Your task to perform on an android device: change your default location settings in chrome Image 0: 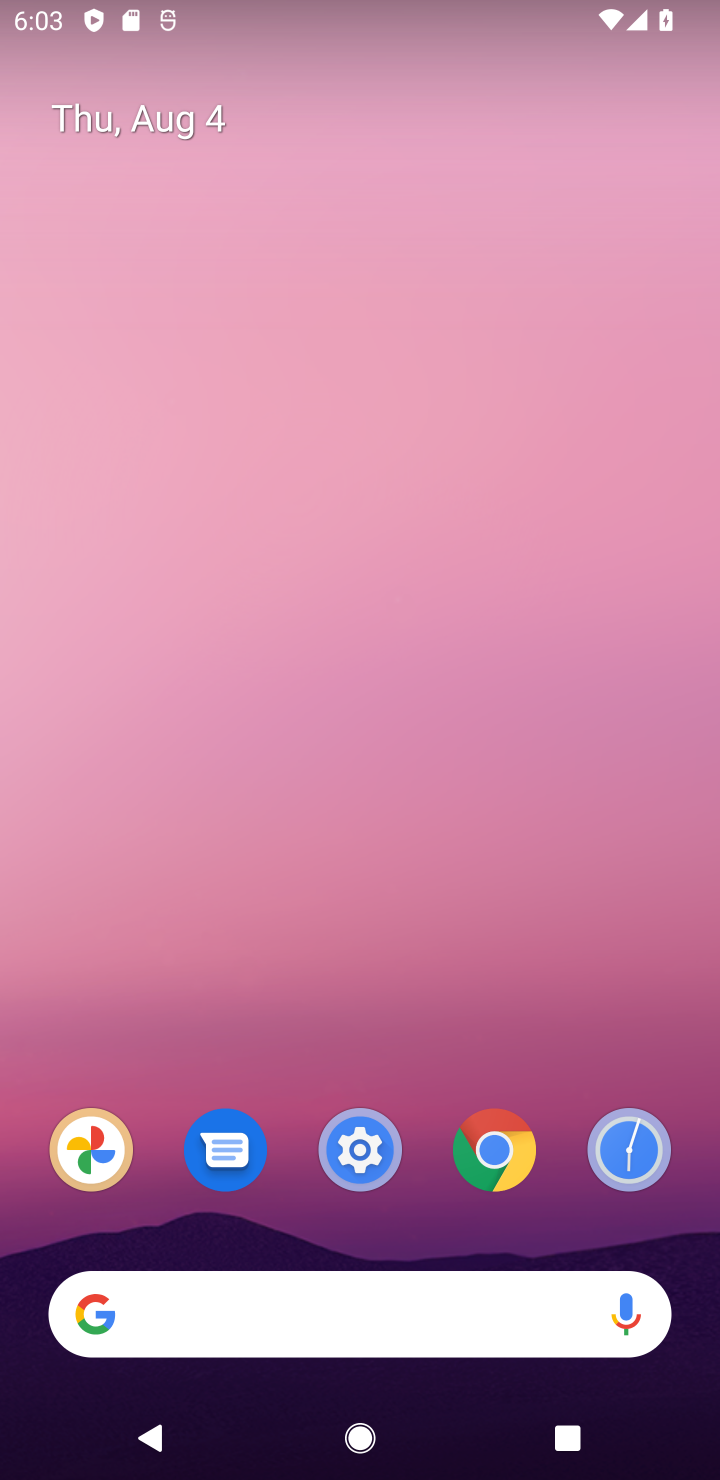
Step 0: drag from (456, 816) to (692, 633)
Your task to perform on an android device: change your default location settings in chrome Image 1: 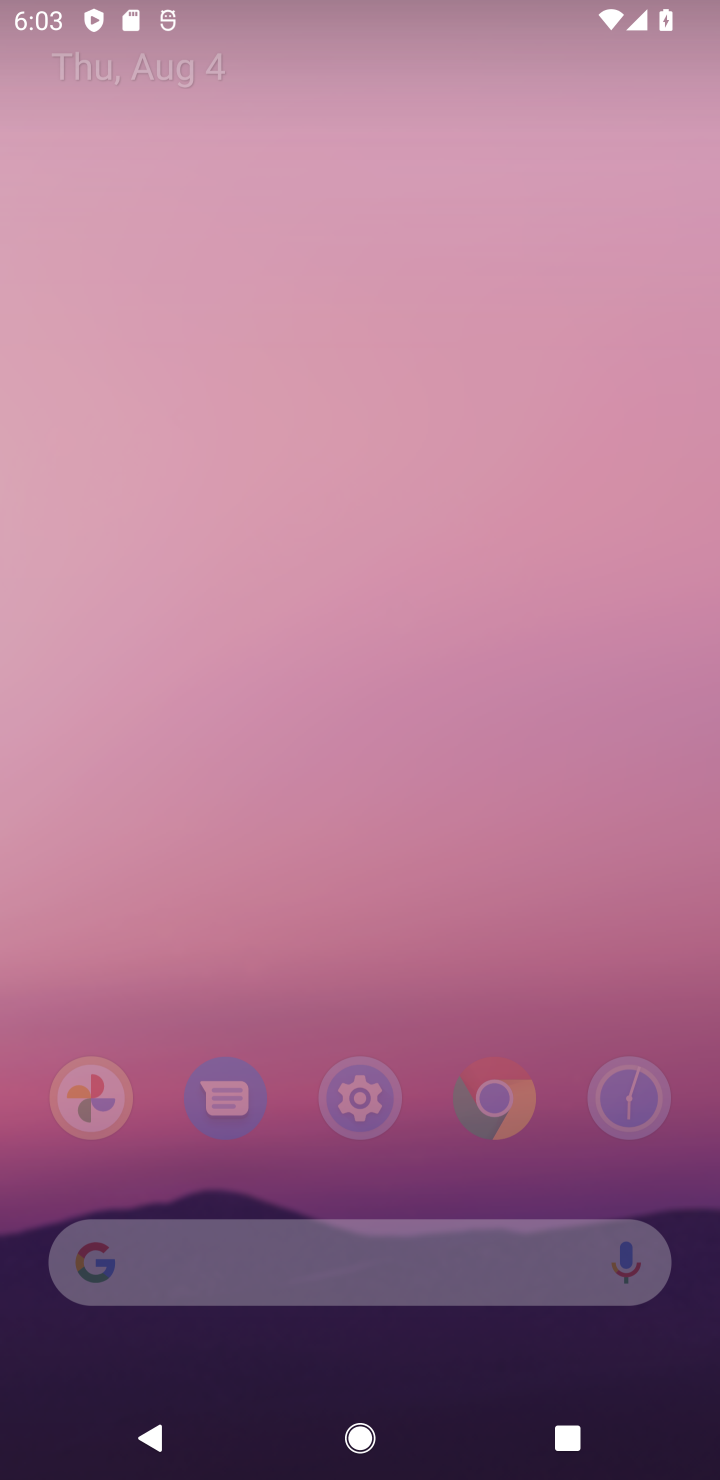
Step 1: click (357, 544)
Your task to perform on an android device: change your default location settings in chrome Image 2: 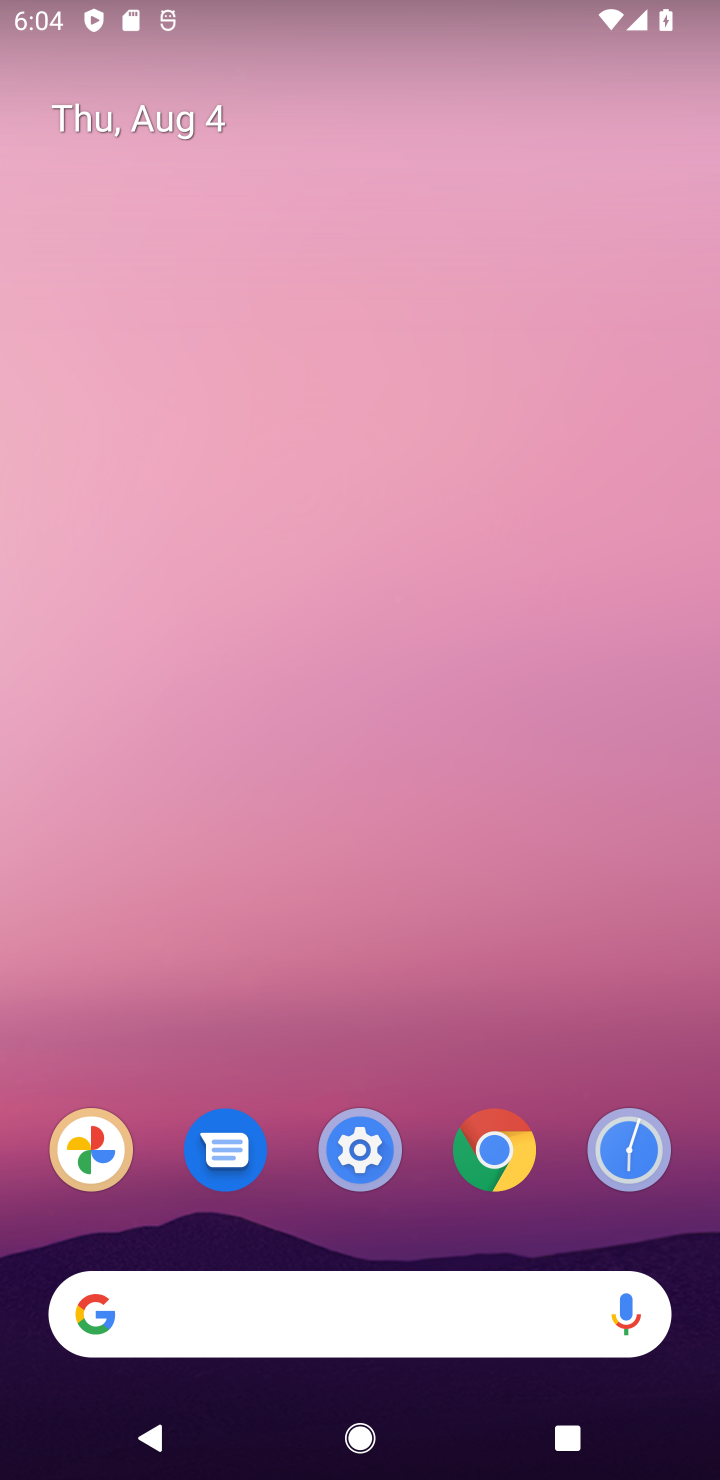
Step 2: drag from (336, 1254) to (549, 174)
Your task to perform on an android device: change your default location settings in chrome Image 3: 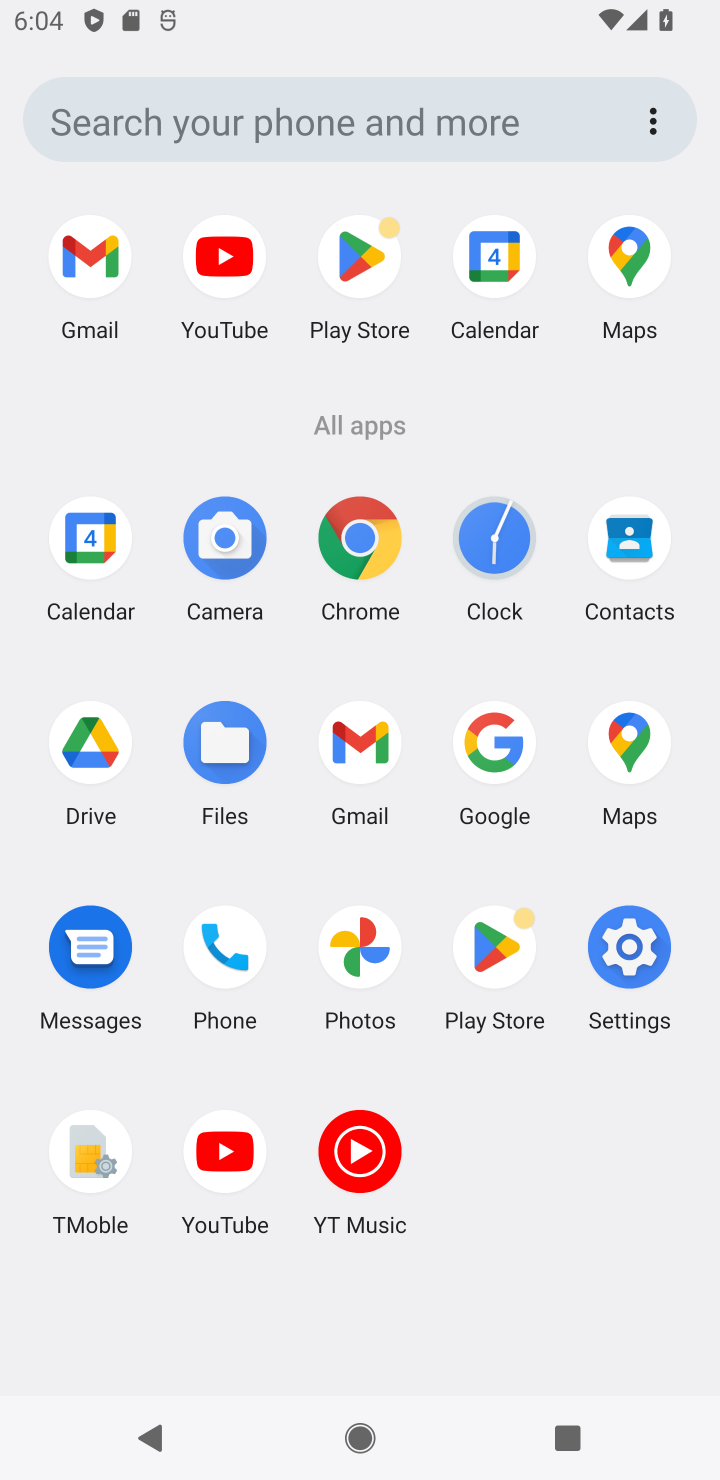
Step 3: click (363, 522)
Your task to perform on an android device: change your default location settings in chrome Image 4: 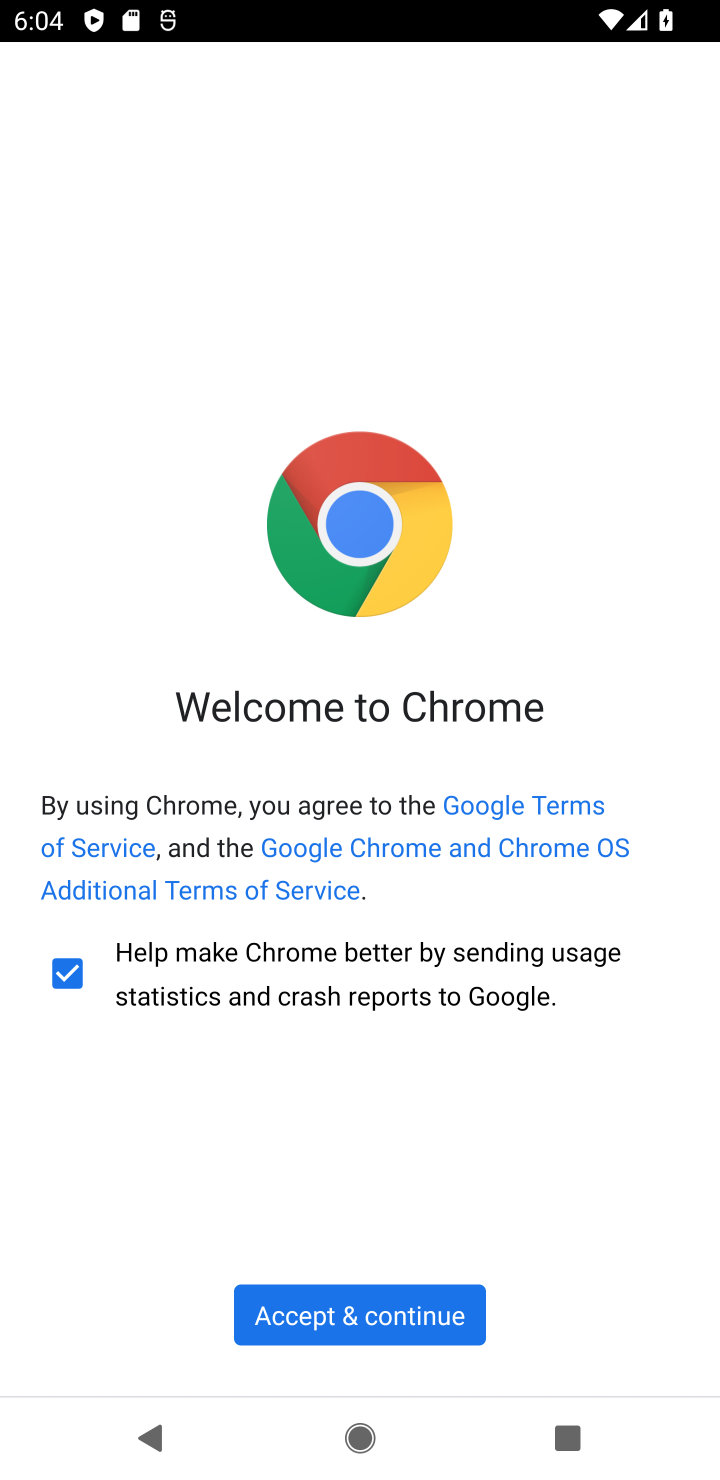
Step 4: click (330, 1291)
Your task to perform on an android device: change your default location settings in chrome Image 5: 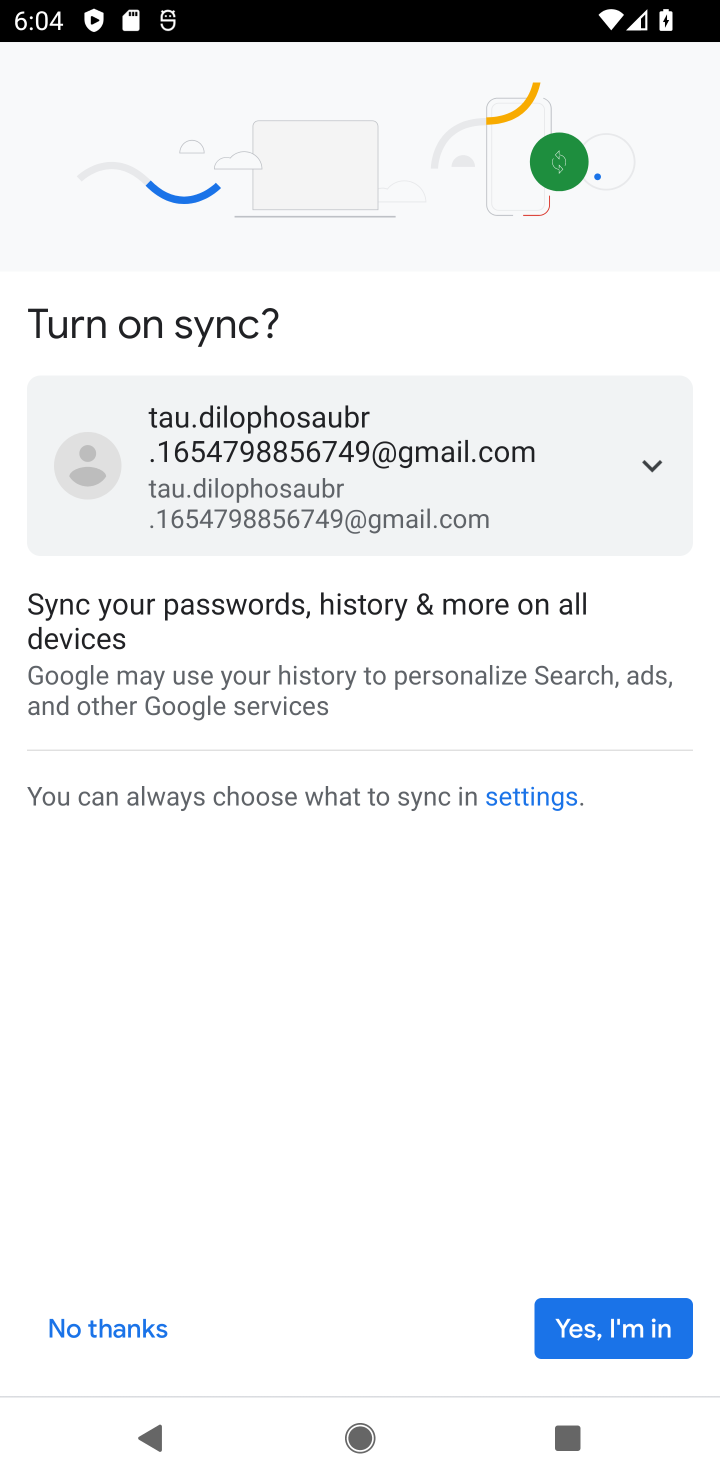
Step 5: click (109, 1327)
Your task to perform on an android device: change your default location settings in chrome Image 6: 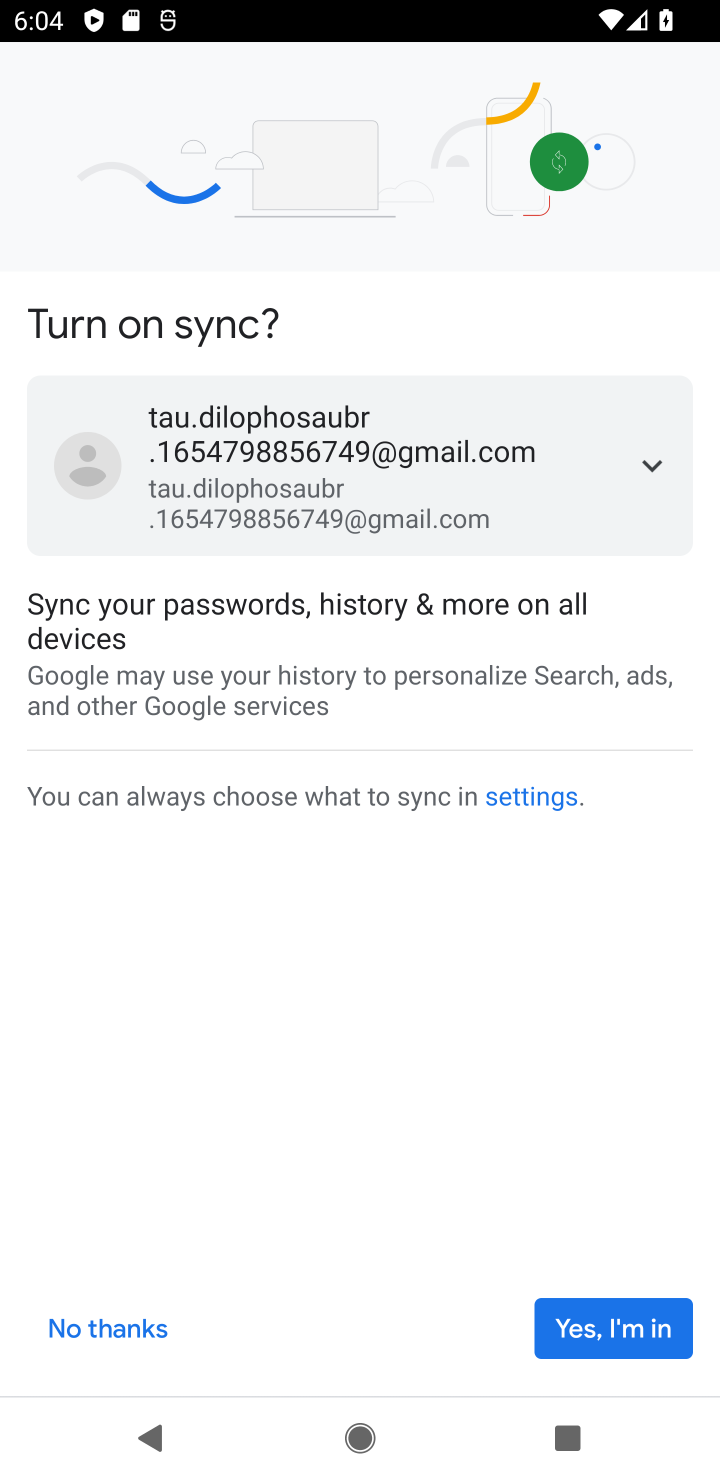
Step 6: click (109, 1321)
Your task to perform on an android device: change your default location settings in chrome Image 7: 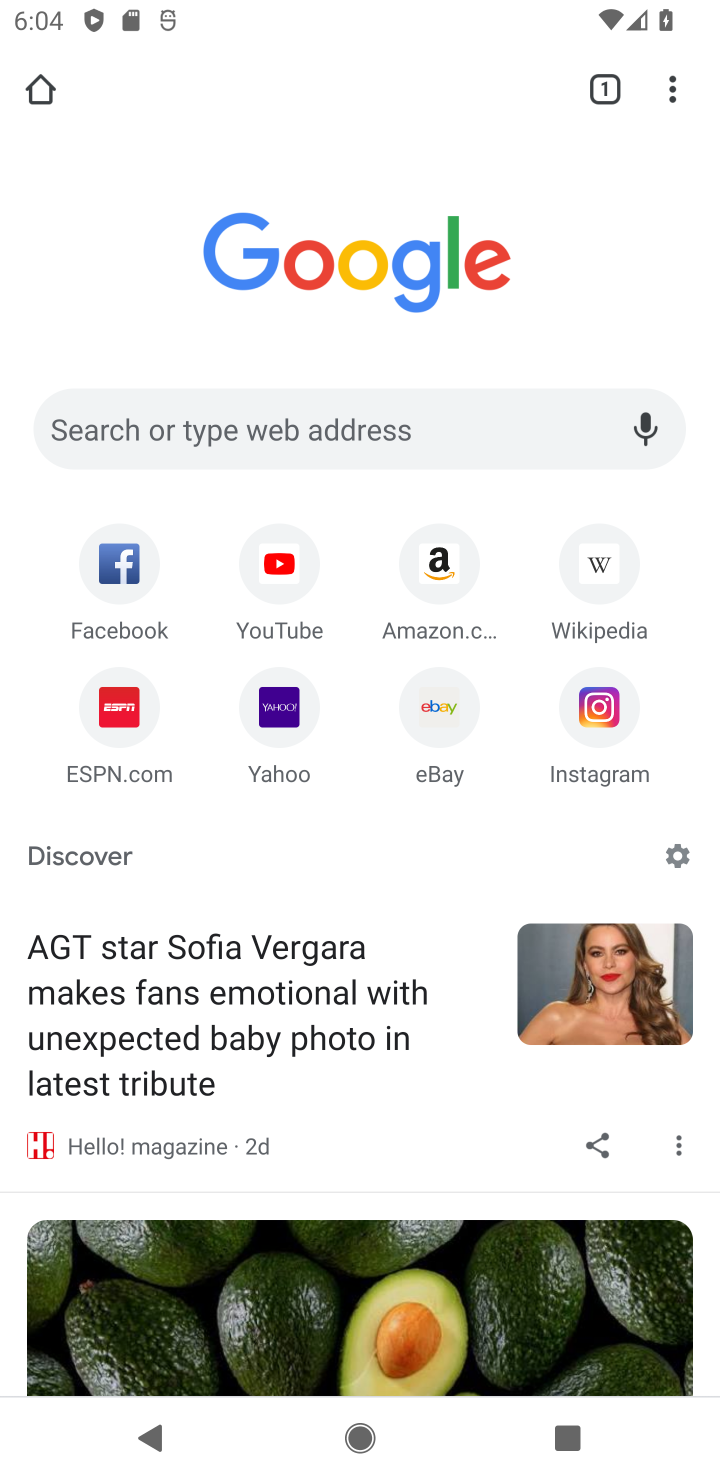
Step 7: drag from (668, 104) to (381, 800)
Your task to perform on an android device: change your default location settings in chrome Image 8: 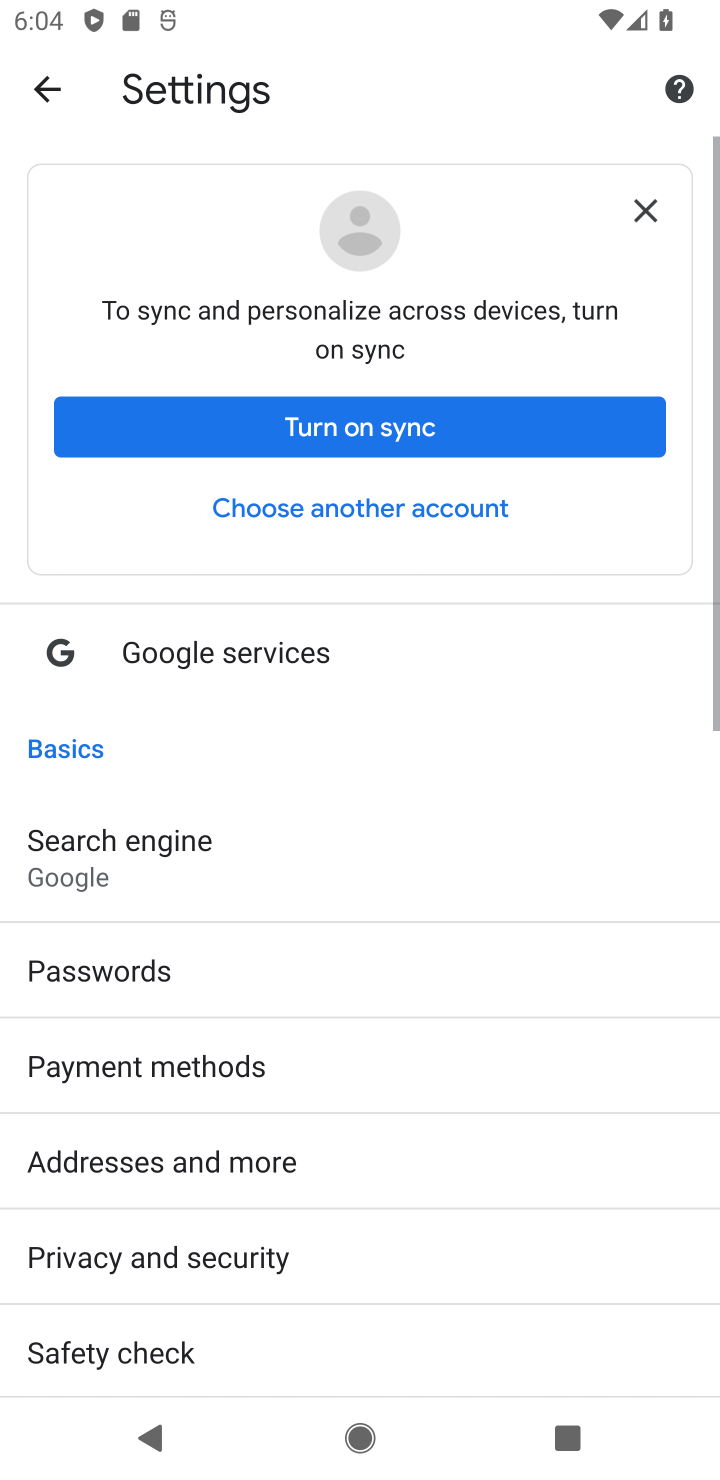
Step 8: drag from (335, 1249) to (442, 345)
Your task to perform on an android device: change your default location settings in chrome Image 9: 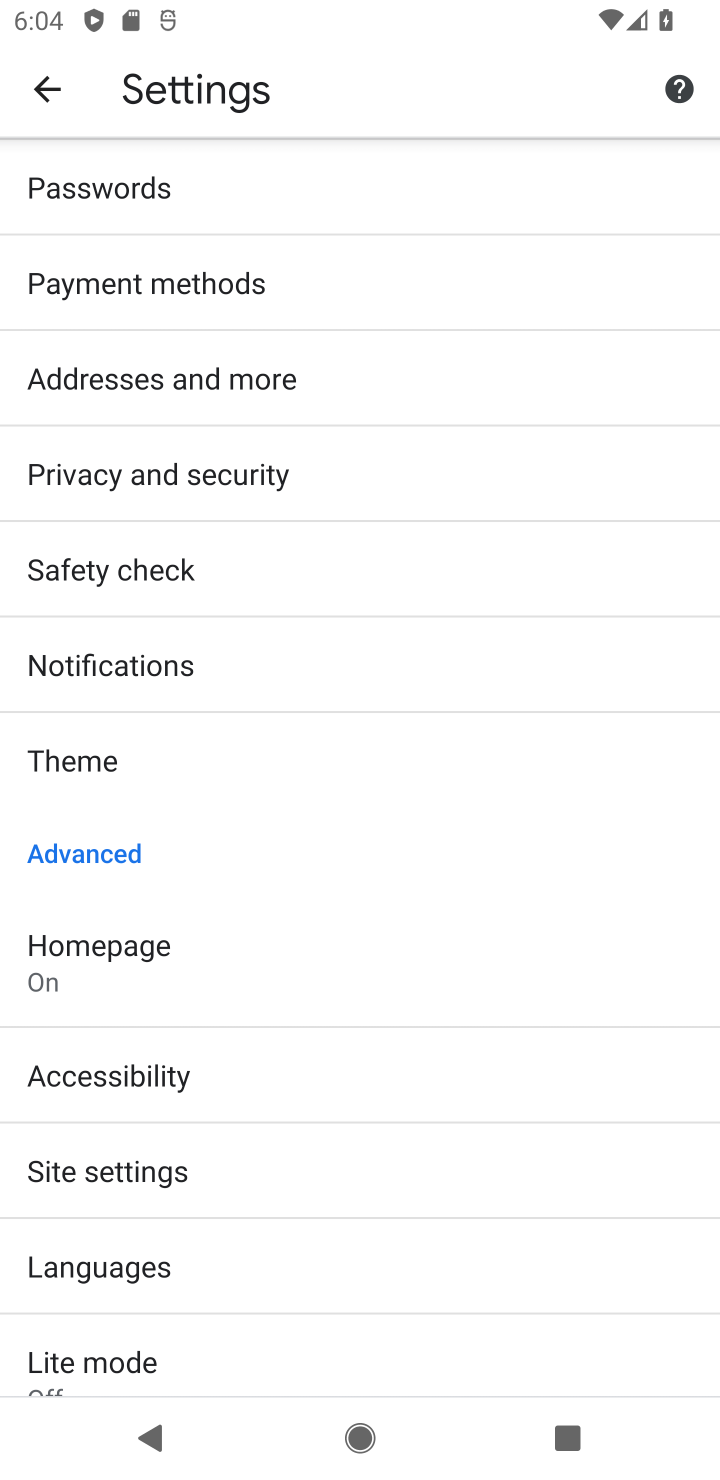
Step 9: click (170, 1185)
Your task to perform on an android device: change your default location settings in chrome Image 10: 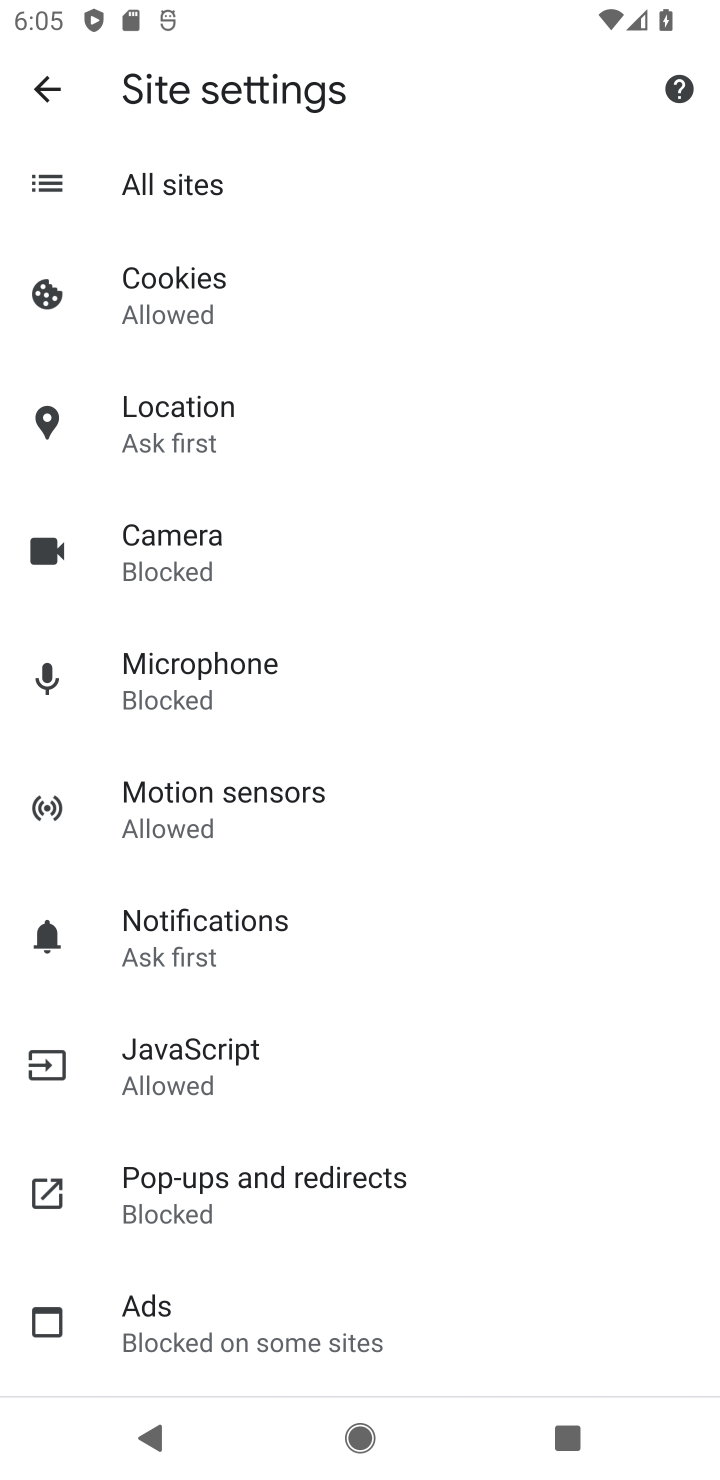
Step 10: click (194, 408)
Your task to perform on an android device: change your default location settings in chrome Image 11: 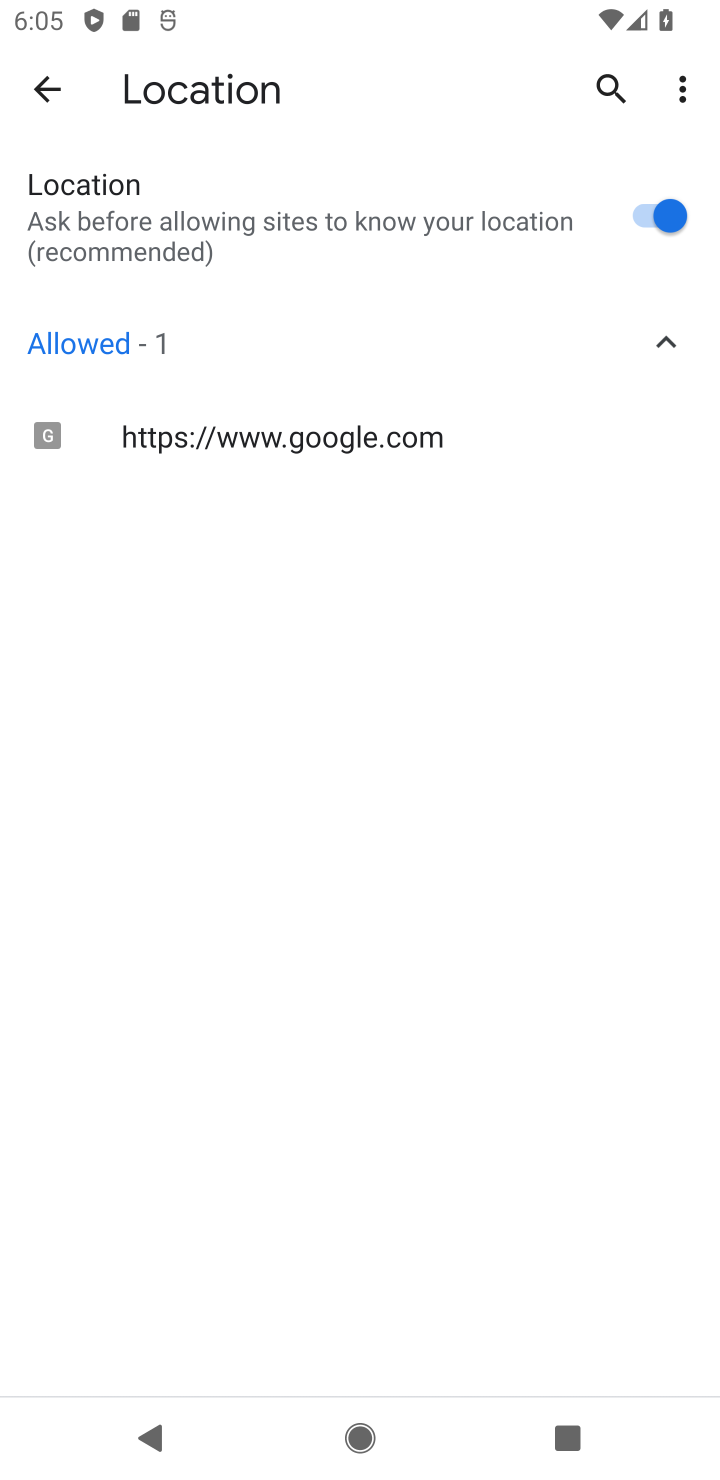
Step 11: task complete